Your task to perform on an android device: What's on my calendar tomorrow? Image 0: 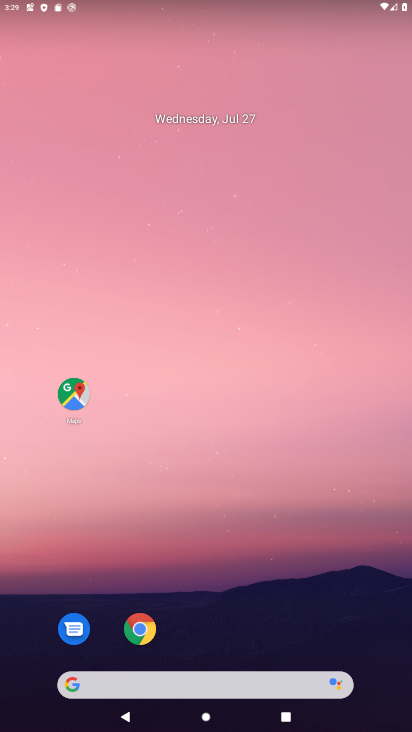
Step 0: drag from (332, 578) to (310, 0)
Your task to perform on an android device: What's on my calendar tomorrow? Image 1: 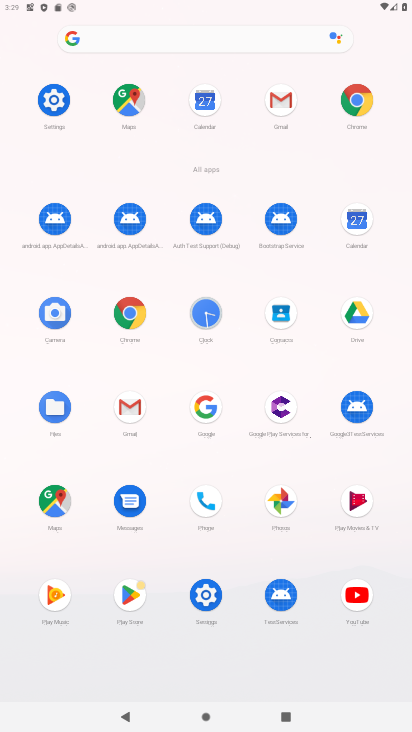
Step 1: click (209, 98)
Your task to perform on an android device: What's on my calendar tomorrow? Image 2: 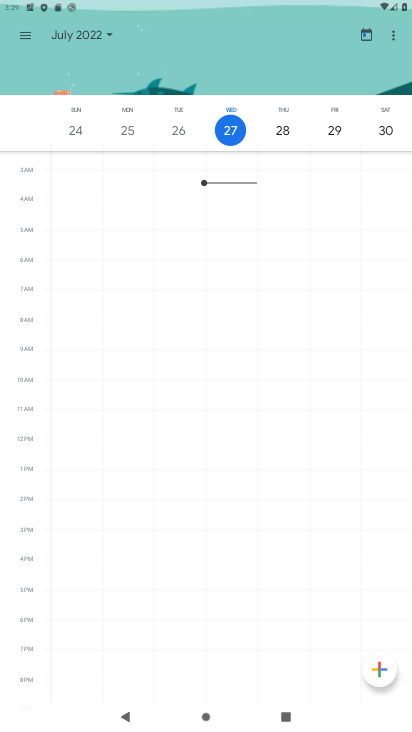
Step 2: click (291, 129)
Your task to perform on an android device: What's on my calendar tomorrow? Image 3: 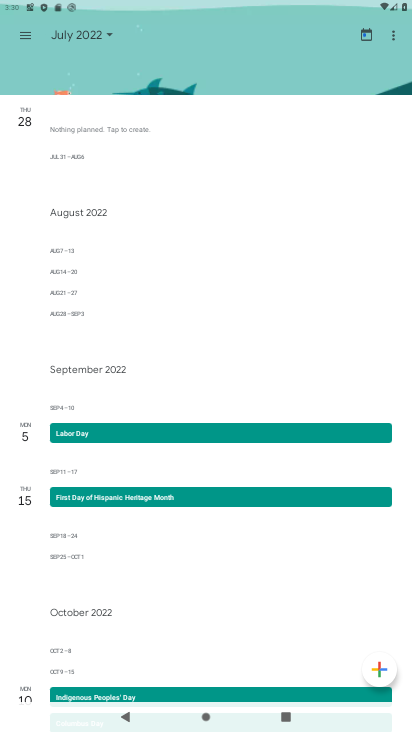
Step 3: task complete